Your task to perform on an android device: Open Yahoo.com Image 0: 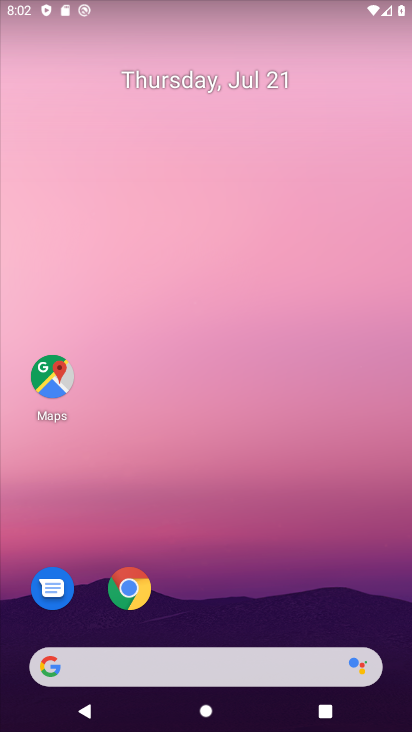
Step 0: drag from (212, 689) to (151, 421)
Your task to perform on an android device: Open Yahoo.com Image 1: 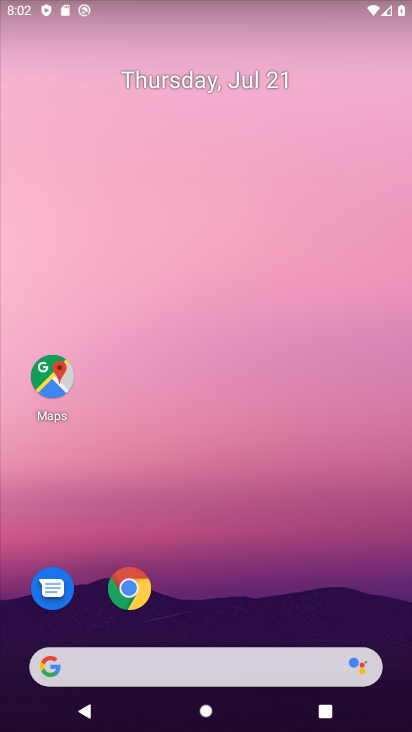
Step 1: drag from (247, 686) to (229, 257)
Your task to perform on an android device: Open Yahoo.com Image 2: 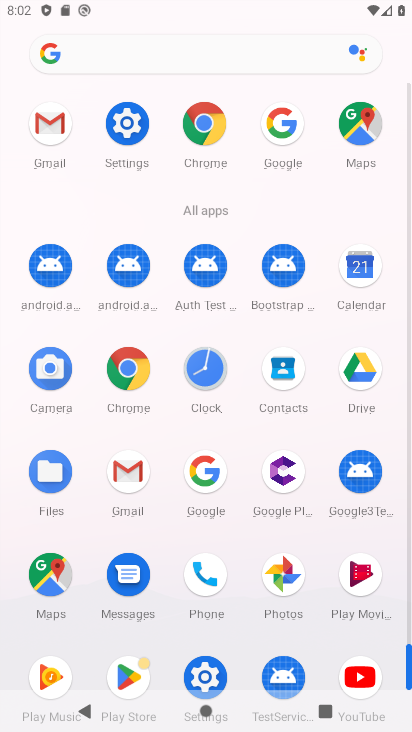
Step 2: click (195, 126)
Your task to perform on an android device: Open Yahoo.com Image 3: 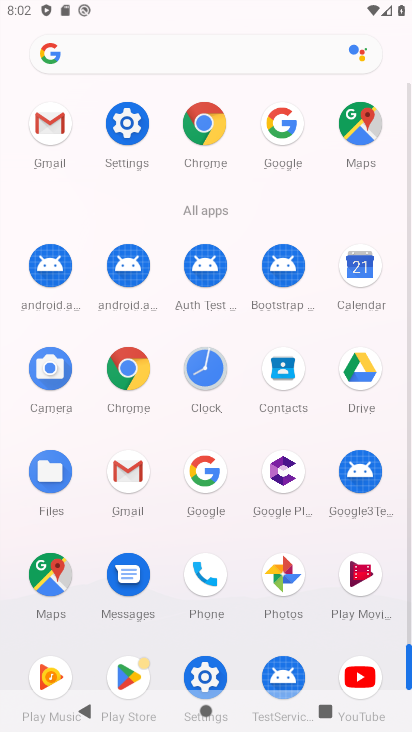
Step 3: click (195, 126)
Your task to perform on an android device: Open Yahoo.com Image 4: 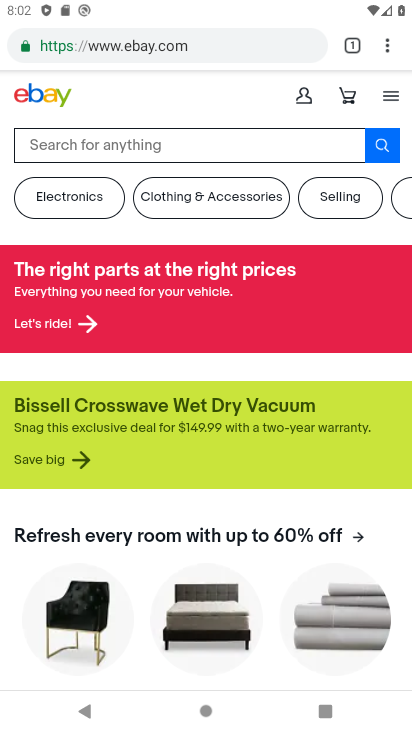
Step 4: drag from (386, 39) to (218, 72)
Your task to perform on an android device: Open Yahoo.com Image 5: 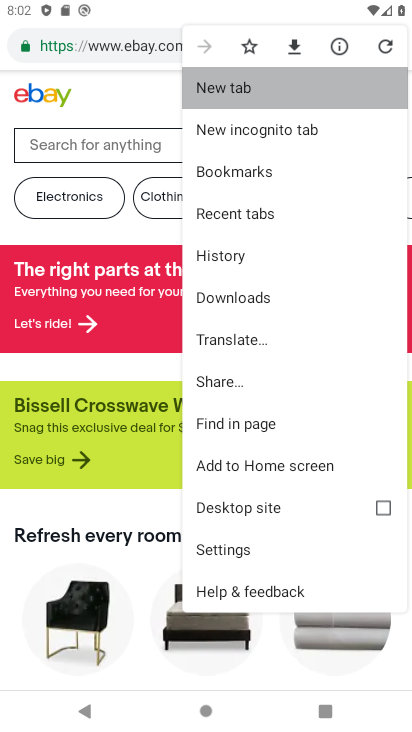
Step 5: click (218, 72)
Your task to perform on an android device: Open Yahoo.com Image 6: 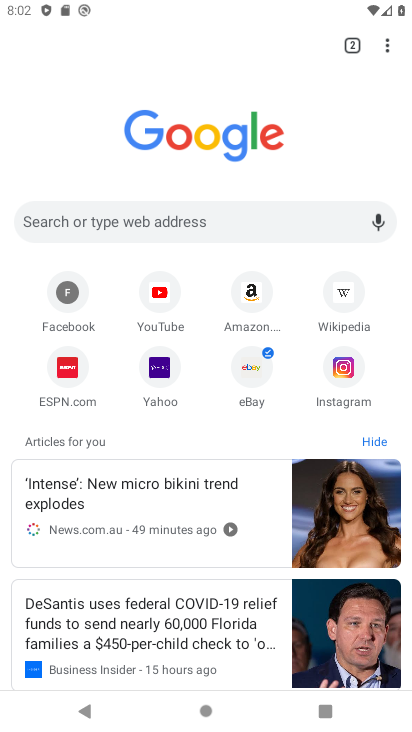
Step 6: click (154, 347)
Your task to perform on an android device: Open Yahoo.com Image 7: 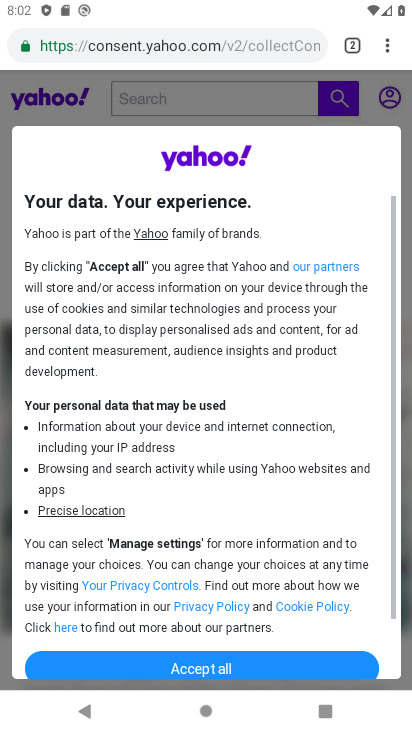
Step 7: task complete